Your task to perform on an android device: Show the shopping cart on ebay. Add "logitech g pro" to the cart on ebay Image 0: 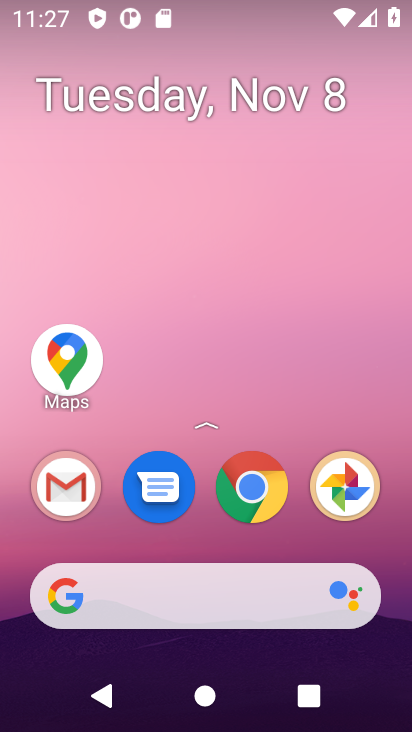
Step 0: click (170, 618)
Your task to perform on an android device: Show the shopping cart on ebay. Add "logitech g pro" to the cart on ebay Image 1: 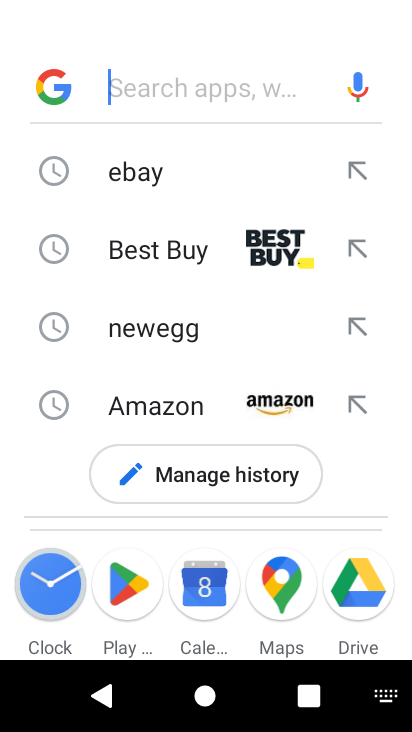
Step 1: click (146, 168)
Your task to perform on an android device: Show the shopping cart on ebay. Add "logitech g pro" to the cart on ebay Image 2: 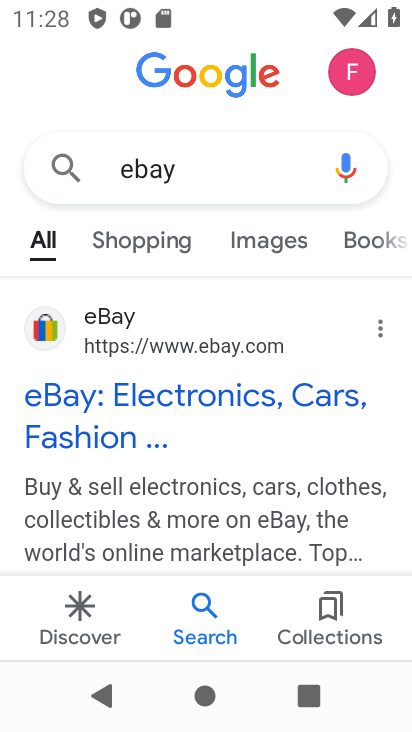
Step 2: click (137, 345)
Your task to perform on an android device: Show the shopping cart on ebay. Add "logitech g pro" to the cart on ebay Image 3: 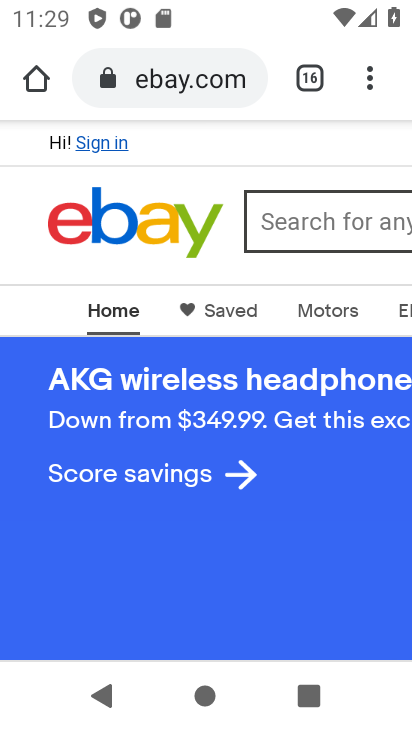
Step 3: click (309, 225)
Your task to perform on an android device: Show the shopping cart on ebay. Add "logitech g pro" to the cart on ebay Image 4: 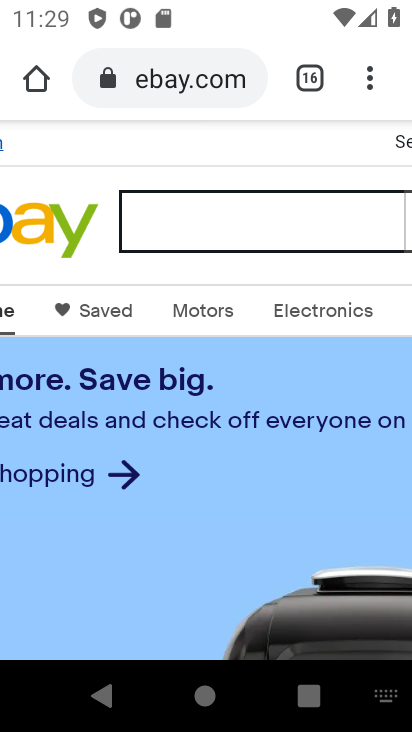
Step 4: drag from (325, 257) to (214, 271)
Your task to perform on an android device: Show the shopping cart on ebay. Add "logitech g pro" to the cart on ebay Image 5: 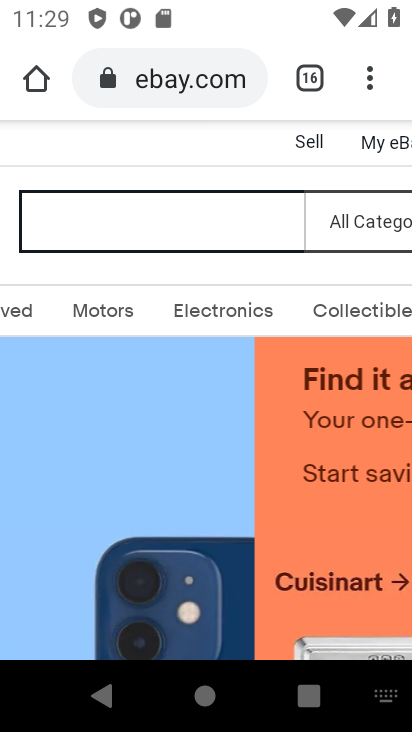
Step 5: drag from (318, 274) to (220, 278)
Your task to perform on an android device: Show the shopping cart on ebay. Add "logitech g pro" to the cart on ebay Image 6: 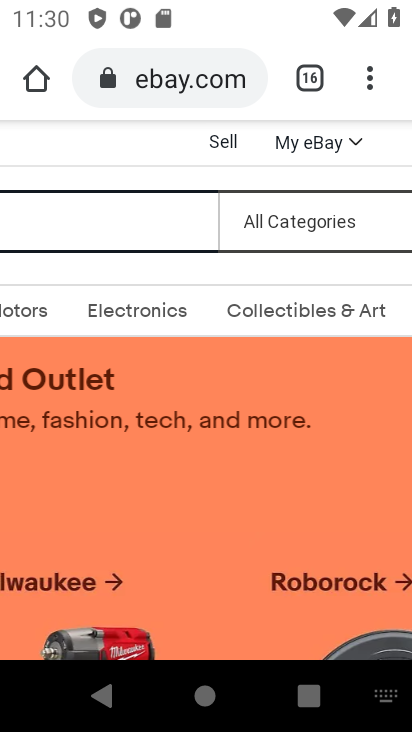
Step 6: drag from (278, 276) to (13, 99)
Your task to perform on an android device: Show the shopping cart on ebay. Add "logitech g pro" to the cart on ebay Image 7: 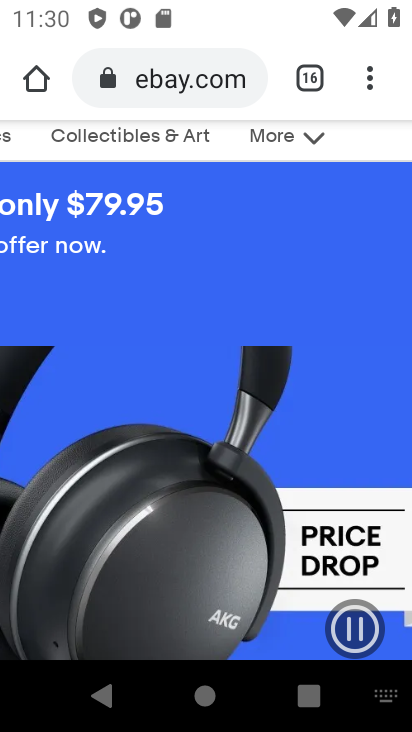
Step 7: drag from (357, 174) to (317, 180)
Your task to perform on an android device: Show the shopping cart on ebay. Add "logitech g pro" to the cart on ebay Image 8: 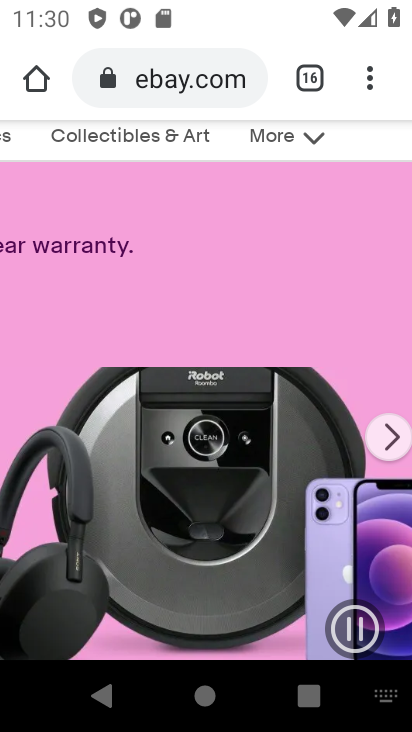
Step 8: drag from (339, 159) to (321, 382)
Your task to perform on an android device: Show the shopping cart on ebay. Add "logitech g pro" to the cart on ebay Image 9: 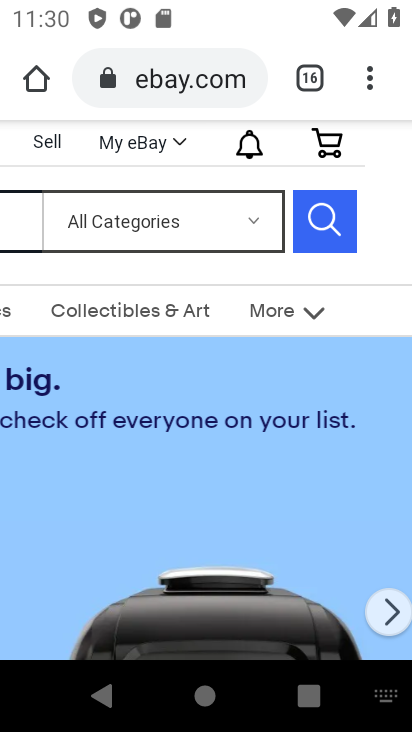
Step 9: click (322, 142)
Your task to perform on an android device: Show the shopping cart on ebay. Add "logitech g pro" to the cart on ebay Image 10: 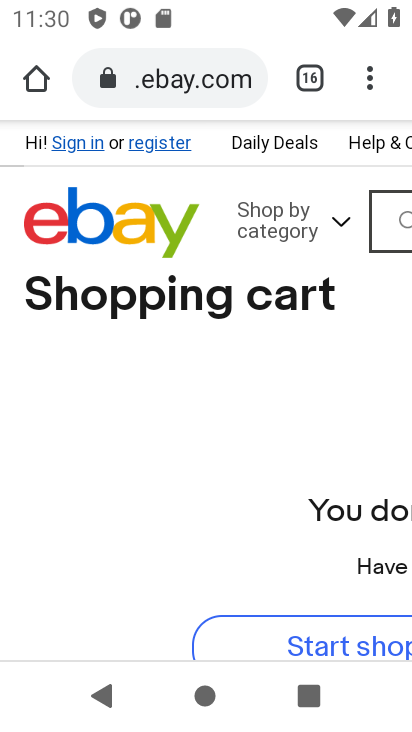
Step 10: task complete